Your task to perform on an android device: open chrome and create a bookmark for the current page Image 0: 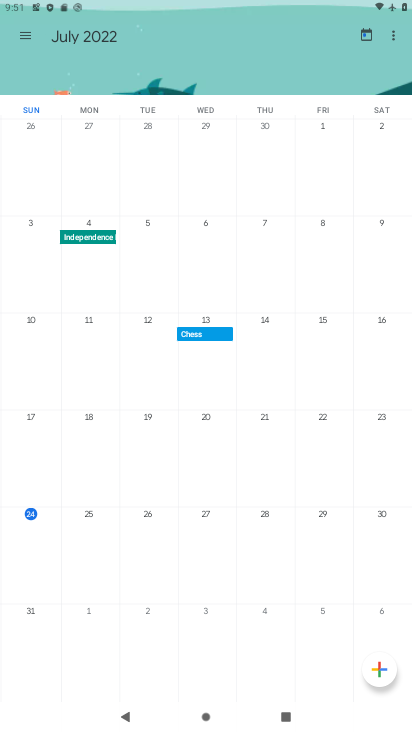
Step 0: task complete